Your task to perform on an android device: Go to settings Image 0: 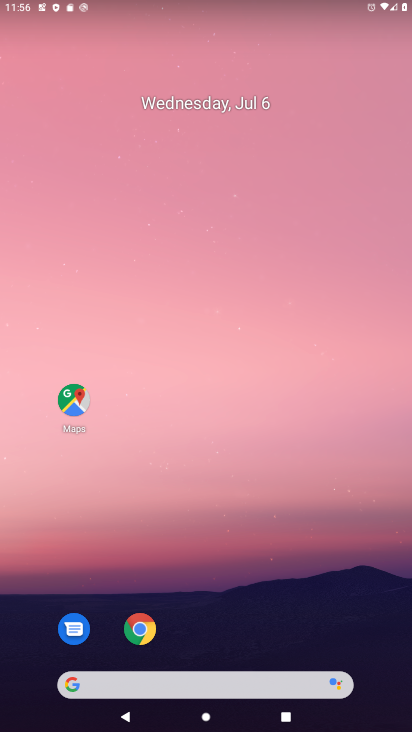
Step 0: drag from (224, 635) to (225, 17)
Your task to perform on an android device: Go to settings Image 1: 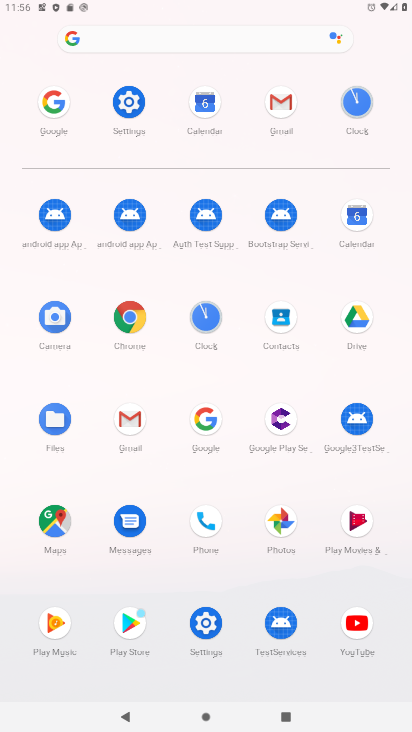
Step 1: click (127, 104)
Your task to perform on an android device: Go to settings Image 2: 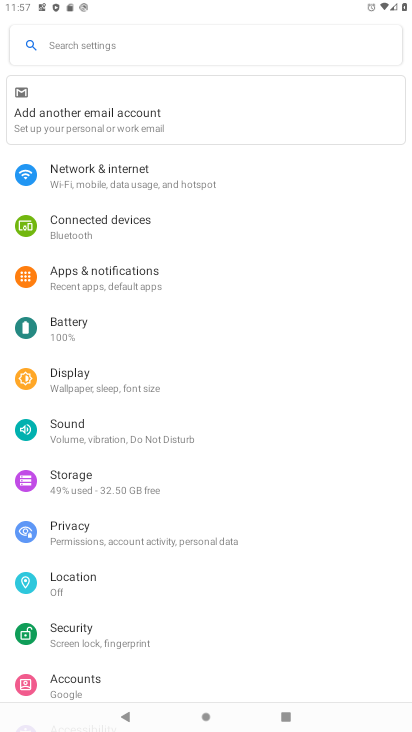
Step 2: task complete